Your task to perform on an android device: Show me popular videos on Youtube Image 0: 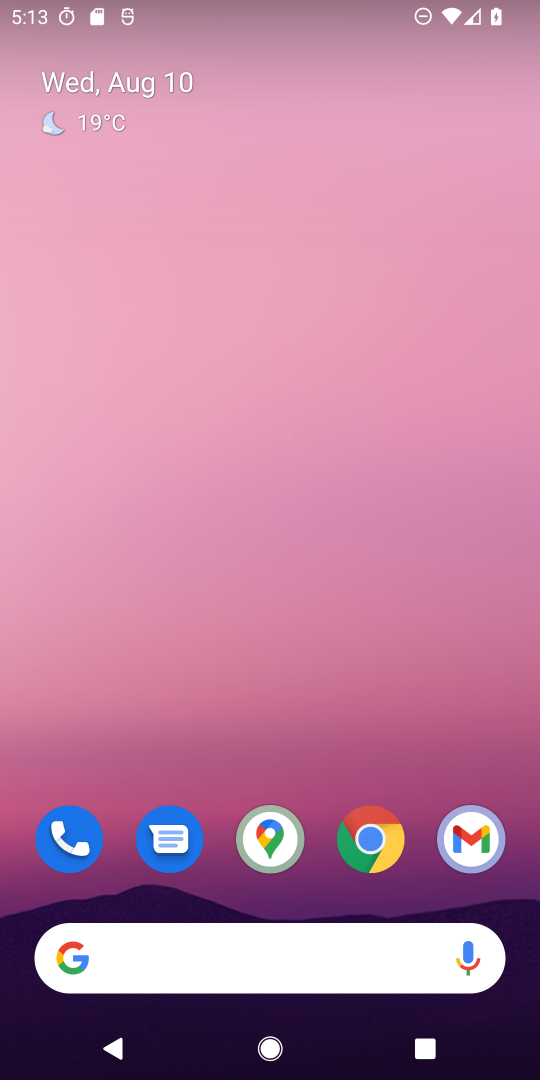
Step 0: drag from (58, 1030) to (401, 301)
Your task to perform on an android device: Show me popular videos on Youtube Image 1: 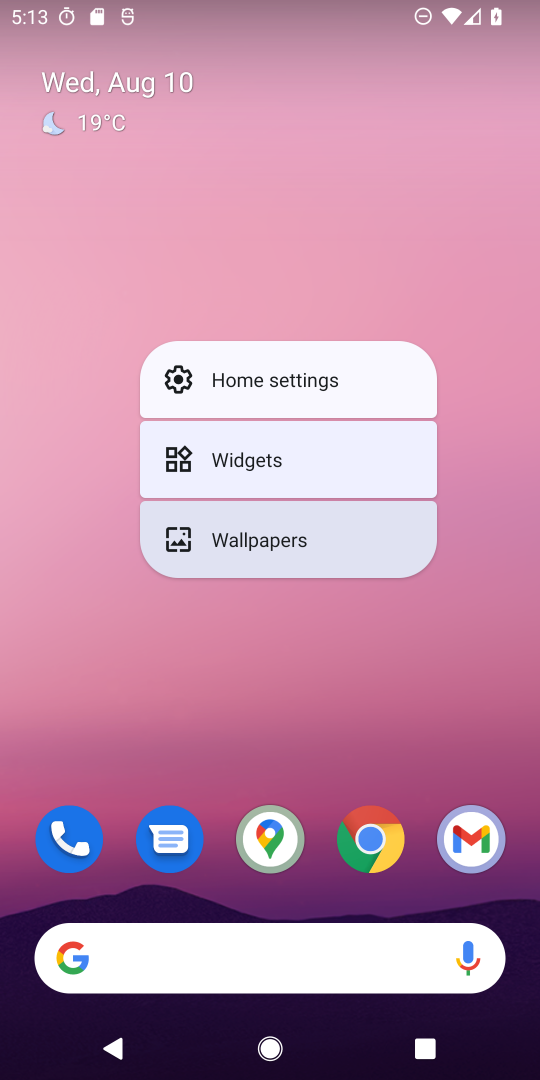
Step 1: drag from (51, 1035) to (301, 316)
Your task to perform on an android device: Show me popular videos on Youtube Image 2: 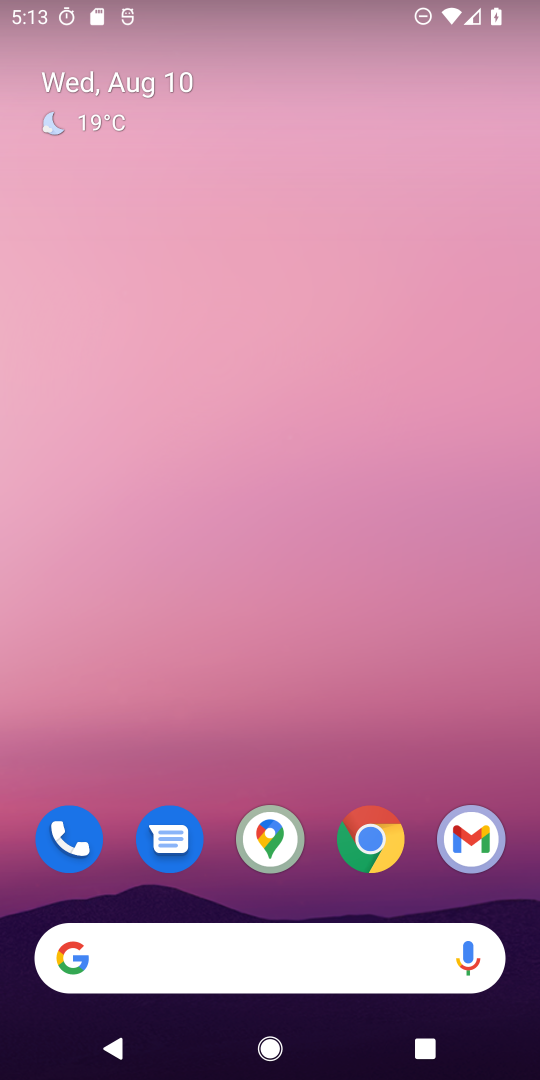
Step 2: drag from (24, 1032) to (390, 430)
Your task to perform on an android device: Show me popular videos on Youtube Image 3: 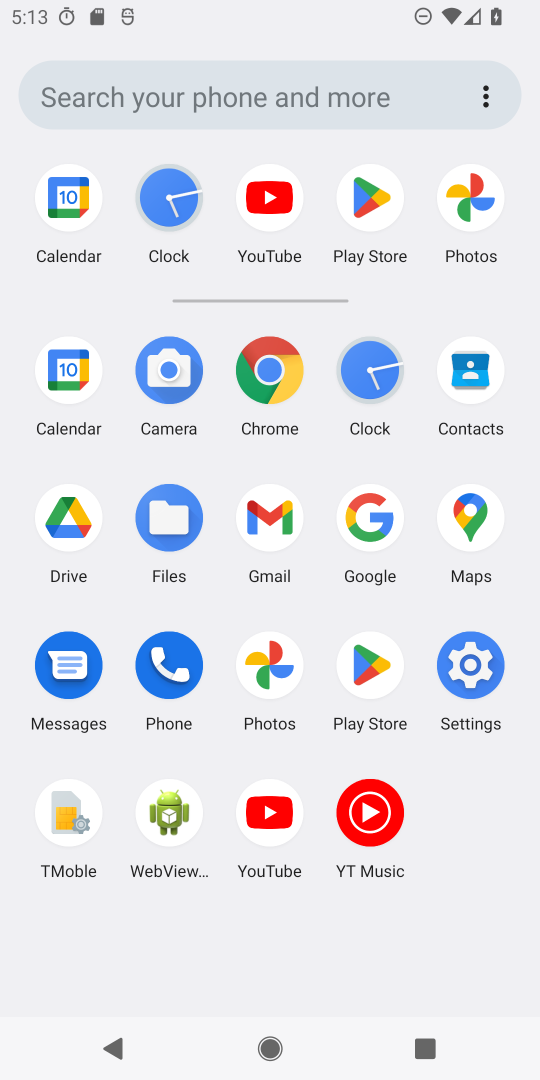
Step 3: click (271, 210)
Your task to perform on an android device: Show me popular videos on Youtube Image 4: 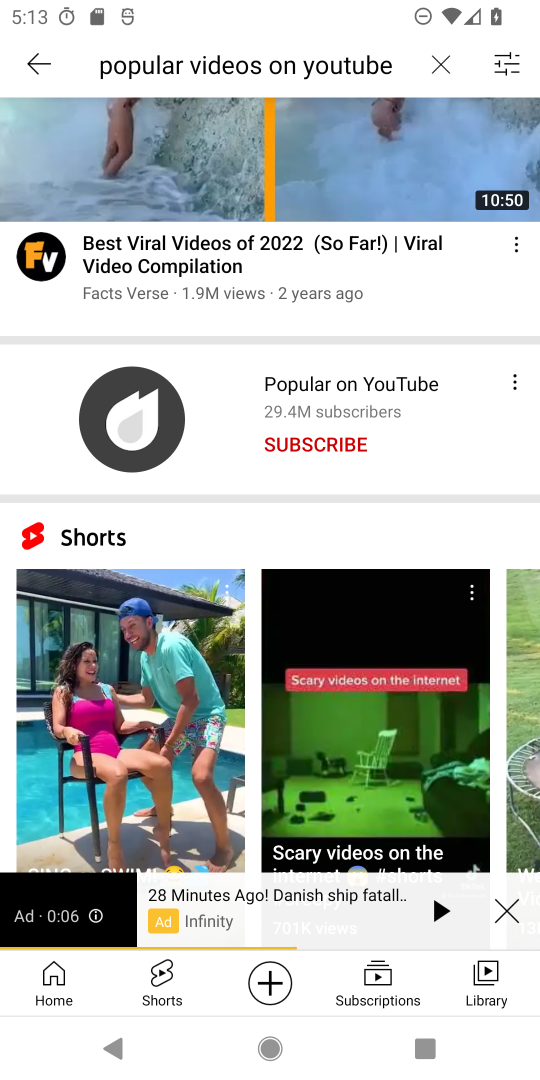
Step 4: task complete